Your task to perform on an android device: allow cookies in the chrome app Image 0: 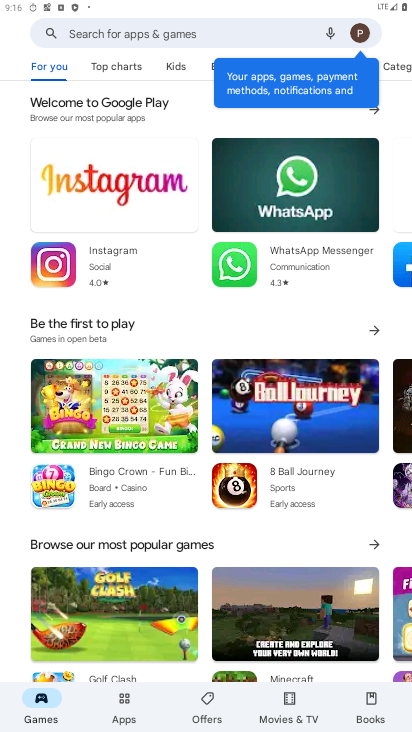
Step 0: press home button
Your task to perform on an android device: allow cookies in the chrome app Image 1: 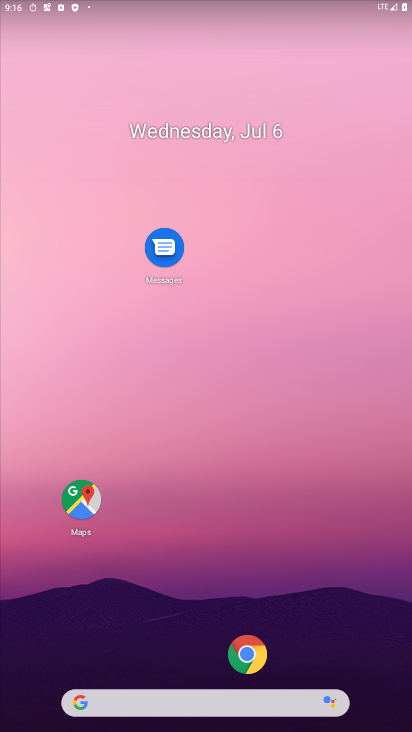
Step 1: click (256, 656)
Your task to perform on an android device: allow cookies in the chrome app Image 2: 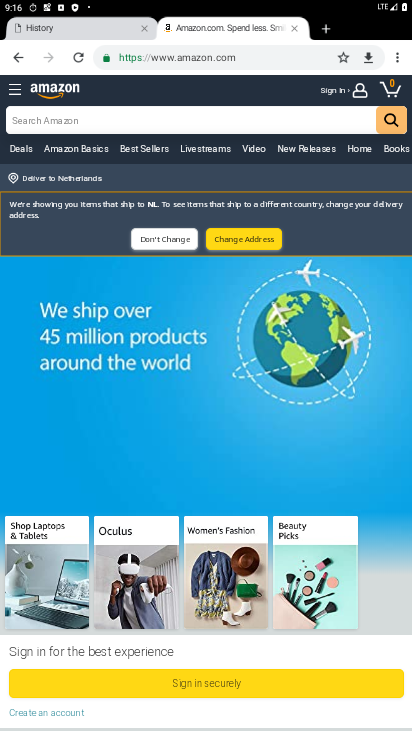
Step 2: click (398, 52)
Your task to perform on an android device: allow cookies in the chrome app Image 3: 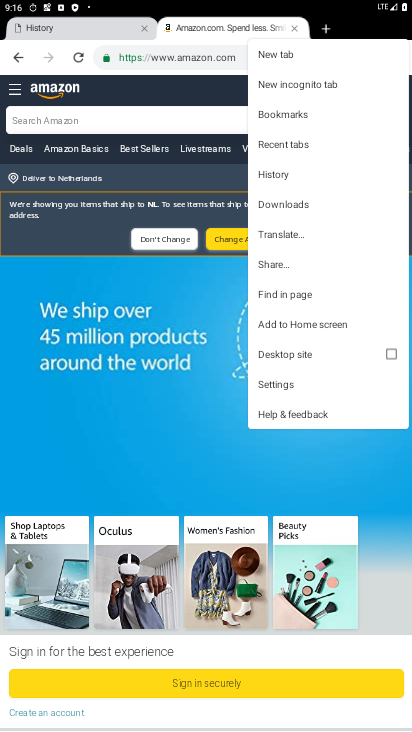
Step 3: click (289, 374)
Your task to perform on an android device: allow cookies in the chrome app Image 4: 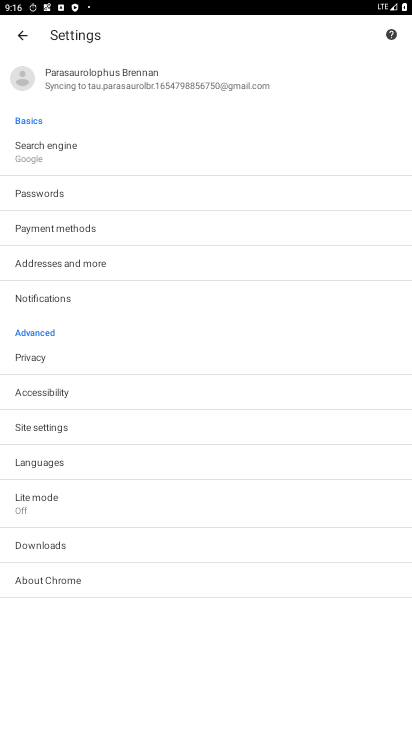
Step 4: click (123, 412)
Your task to perform on an android device: allow cookies in the chrome app Image 5: 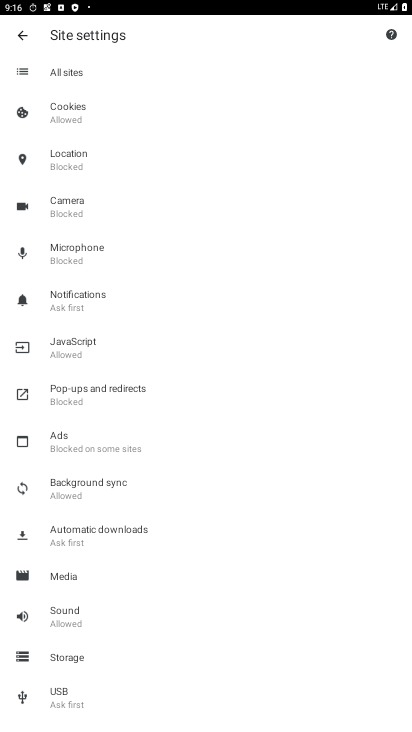
Step 5: click (115, 117)
Your task to perform on an android device: allow cookies in the chrome app Image 6: 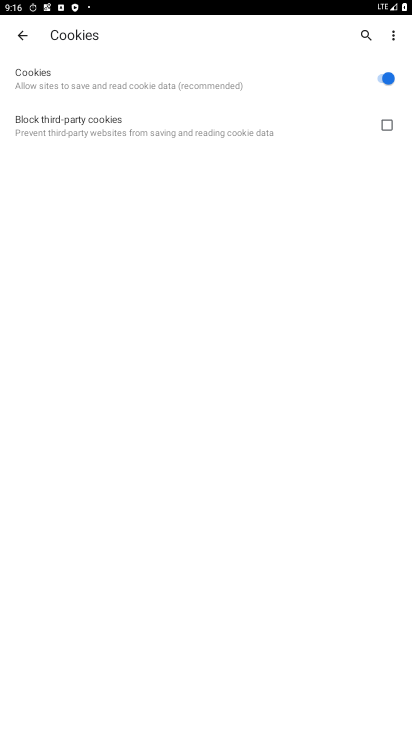
Step 6: task complete